Your task to perform on an android device: Open Chrome and go to settings Image 0: 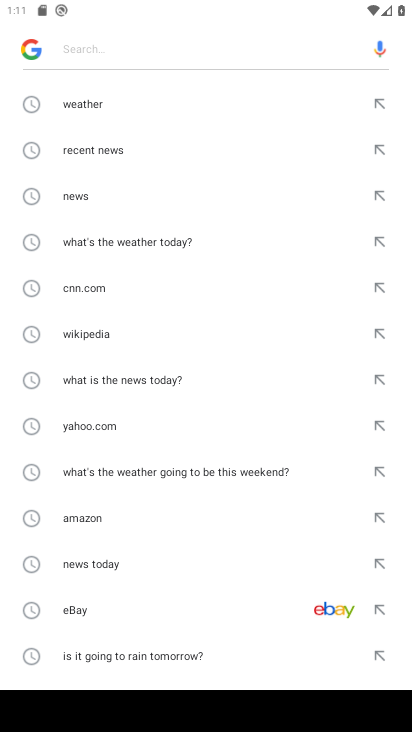
Step 0: press home button
Your task to perform on an android device: Open Chrome and go to settings Image 1: 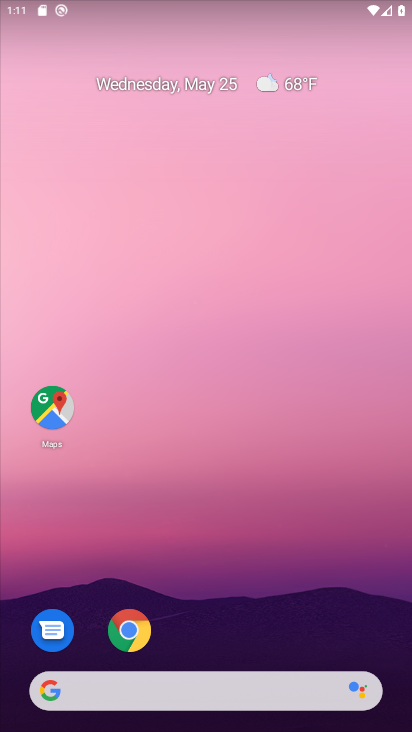
Step 1: click (124, 635)
Your task to perform on an android device: Open Chrome and go to settings Image 2: 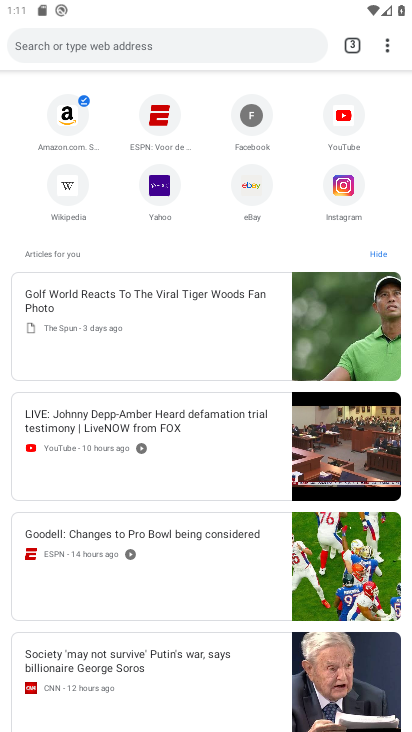
Step 2: task complete